Your task to perform on an android device: Open Maps and search for coffee Image 0: 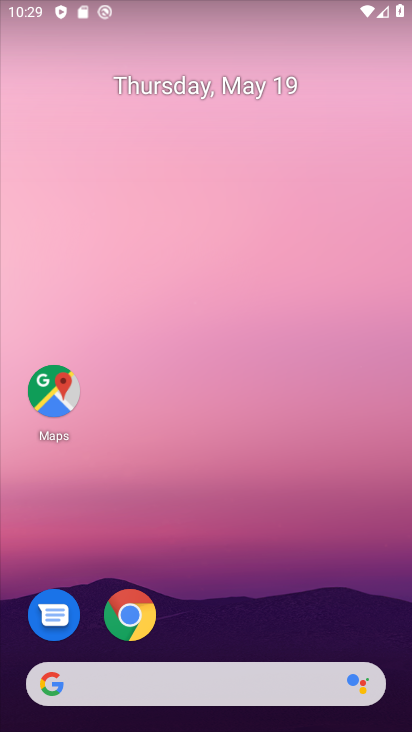
Step 0: click (50, 389)
Your task to perform on an android device: Open Maps and search for coffee Image 1: 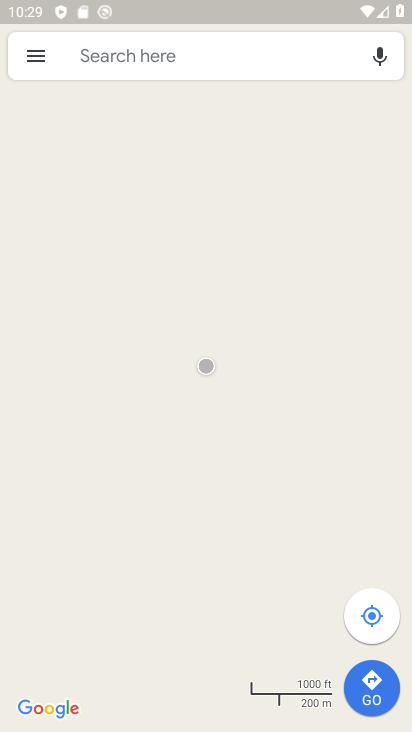
Step 1: click (108, 57)
Your task to perform on an android device: Open Maps and search for coffee Image 2: 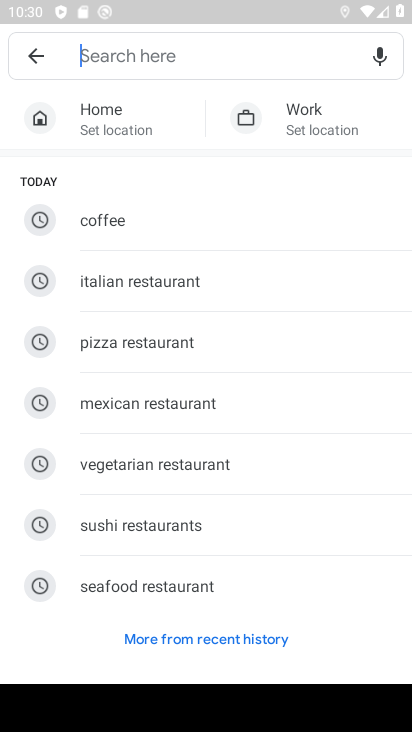
Step 2: type "coffee"
Your task to perform on an android device: Open Maps and search for coffee Image 3: 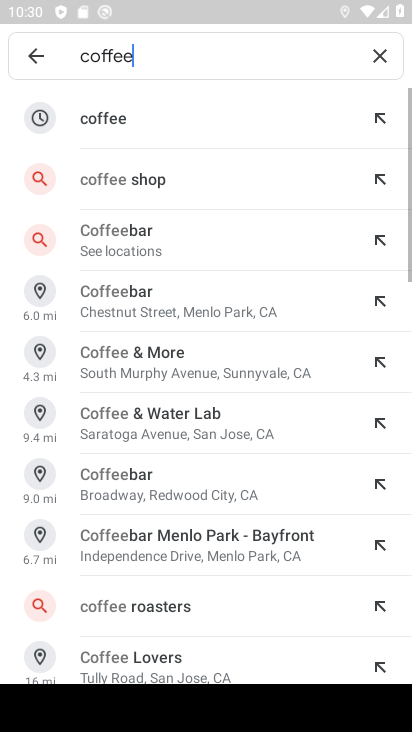
Step 3: click (115, 116)
Your task to perform on an android device: Open Maps and search for coffee Image 4: 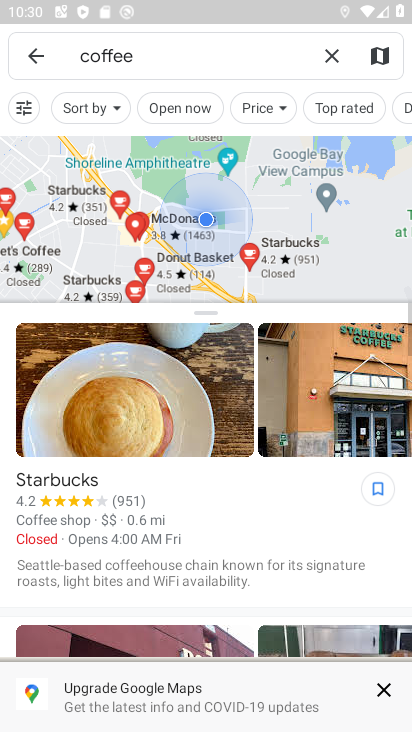
Step 4: task complete